Your task to perform on an android device: Open privacy settings Image 0: 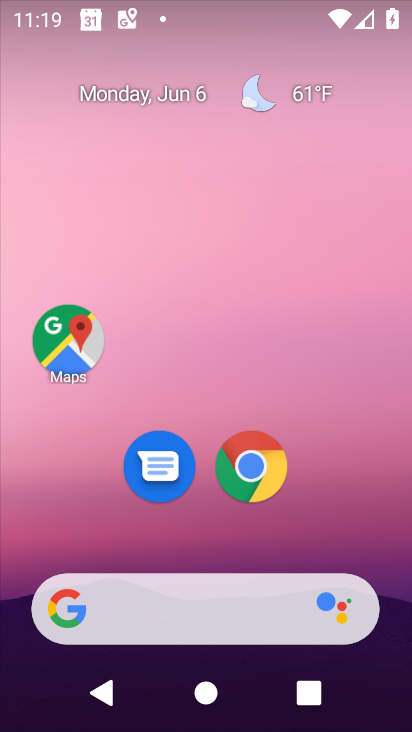
Step 0: drag from (195, 521) to (298, 1)
Your task to perform on an android device: Open privacy settings Image 1: 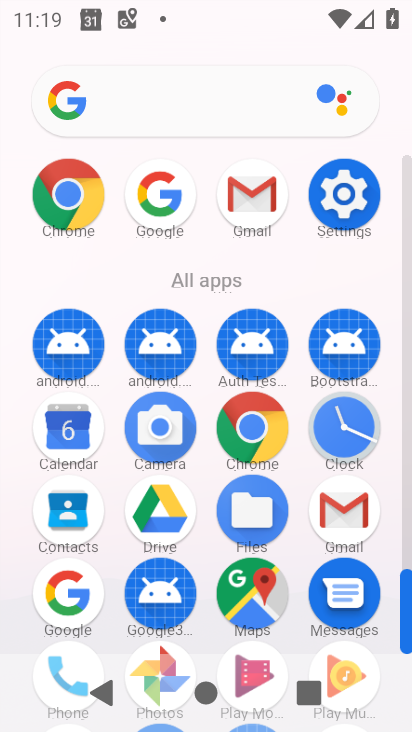
Step 1: click (364, 181)
Your task to perform on an android device: Open privacy settings Image 2: 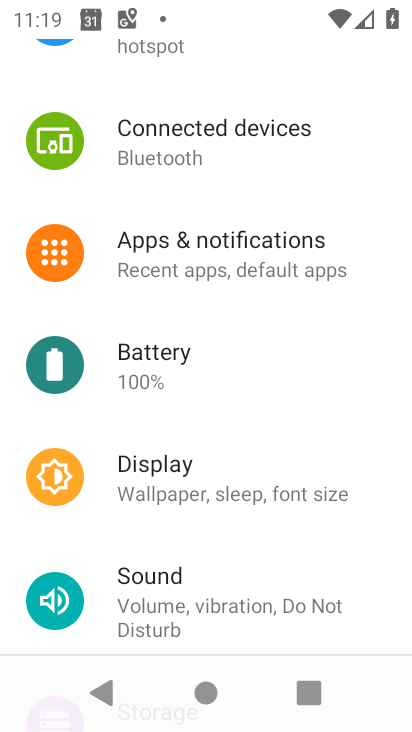
Step 2: drag from (212, 485) to (196, 223)
Your task to perform on an android device: Open privacy settings Image 3: 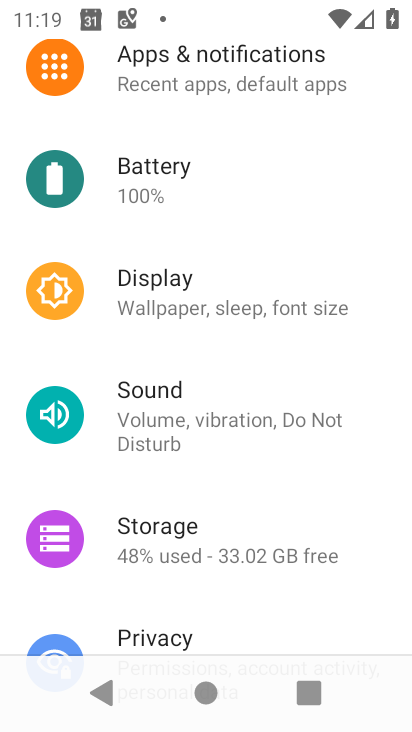
Step 3: click (175, 617)
Your task to perform on an android device: Open privacy settings Image 4: 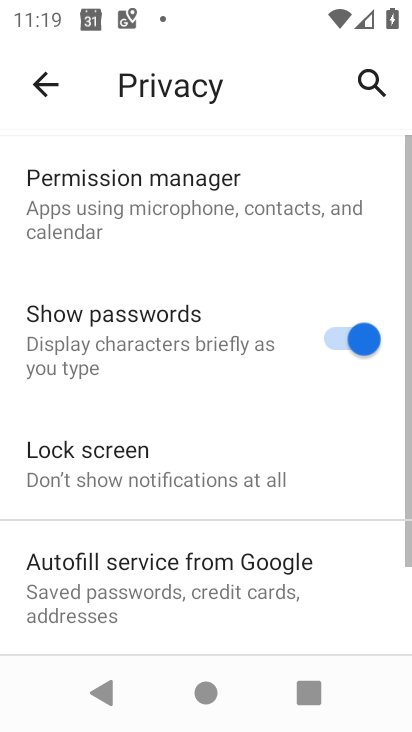
Step 4: task complete